Your task to perform on an android device: see tabs open on other devices in the chrome app Image 0: 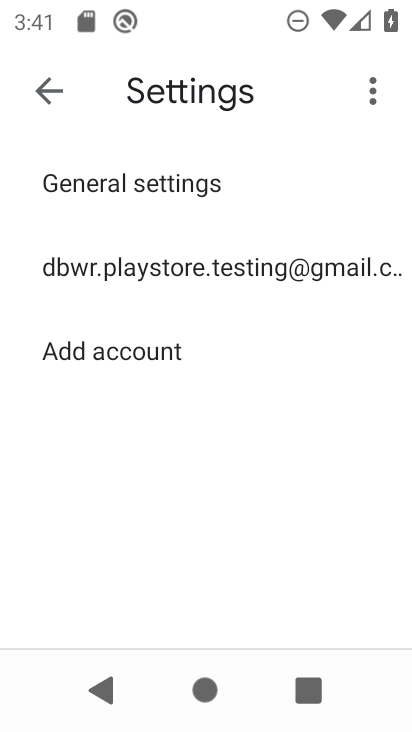
Step 0: press home button
Your task to perform on an android device: see tabs open on other devices in the chrome app Image 1: 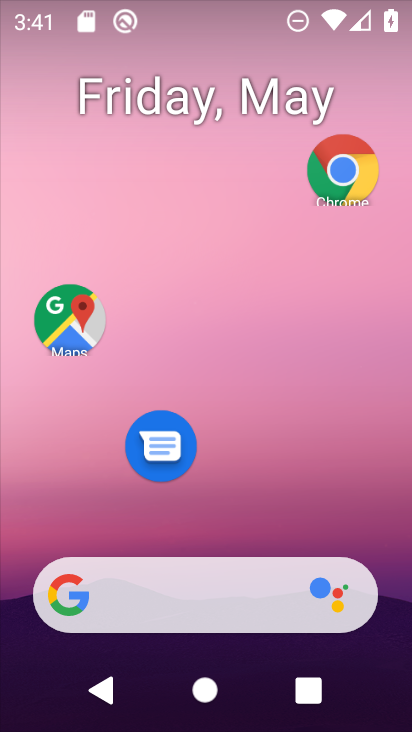
Step 1: drag from (256, 507) to (246, 109)
Your task to perform on an android device: see tabs open on other devices in the chrome app Image 2: 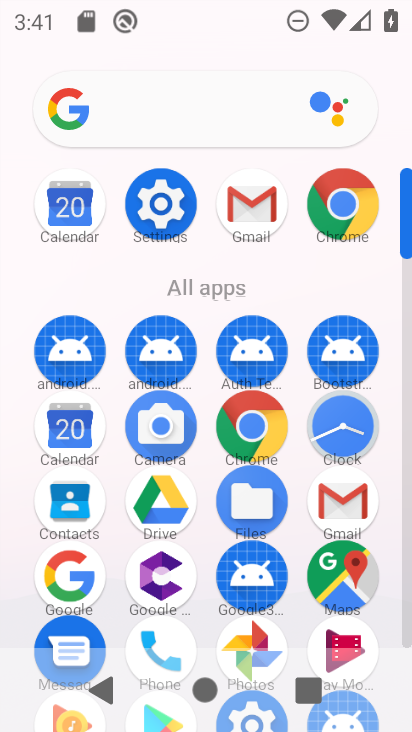
Step 2: click (247, 426)
Your task to perform on an android device: see tabs open on other devices in the chrome app Image 3: 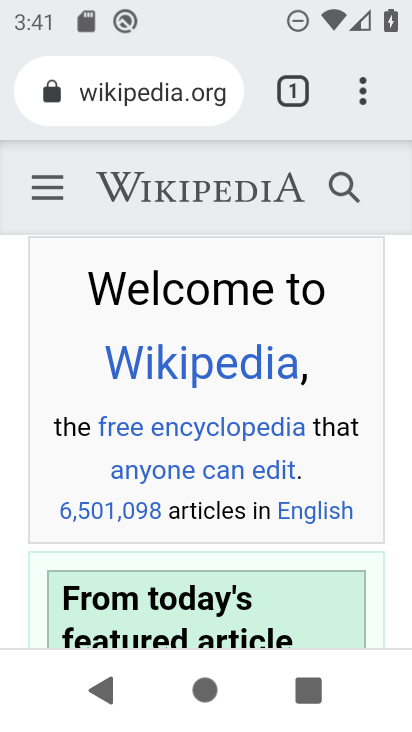
Step 3: drag from (365, 89) to (153, 427)
Your task to perform on an android device: see tabs open on other devices in the chrome app Image 4: 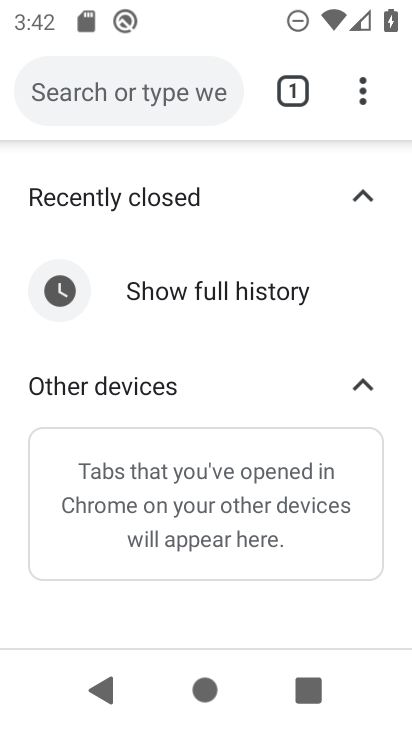
Step 4: click (140, 381)
Your task to perform on an android device: see tabs open on other devices in the chrome app Image 5: 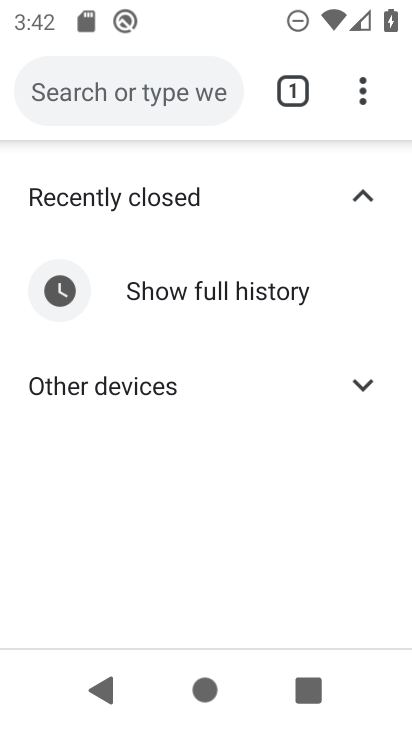
Step 5: task complete